Your task to perform on an android device: open chrome and create a bookmark for the current page Image 0: 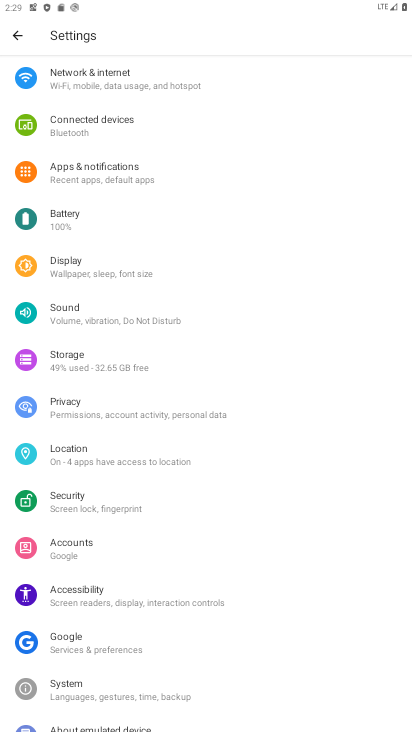
Step 0: press home button
Your task to perform on an android device: open chrome and create a bookmark for the current page Image 1: 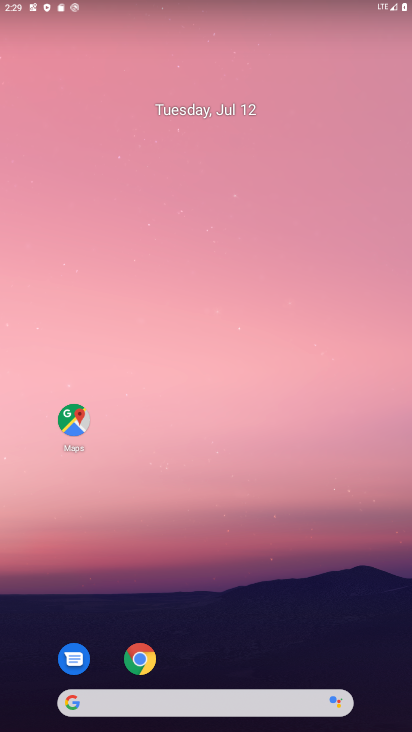
Step 1: click (137, 661)
Your task to perform on an android device: open chrome and create a bookmark for the current page Image 2: 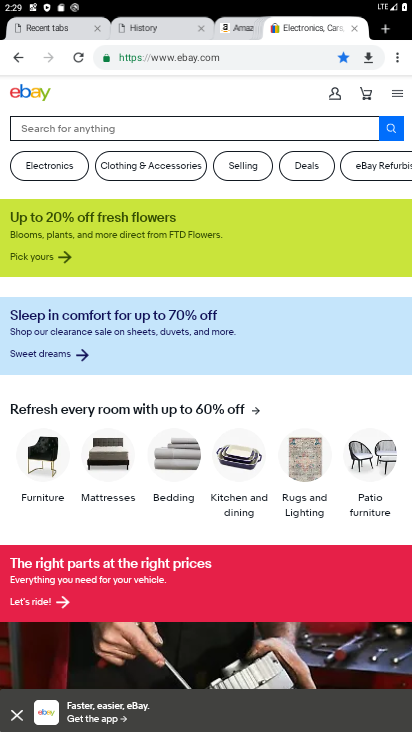
Step 2: task complete